Your task to perform on an android device: Search for seafood restaurants on Google Maps Image 0: 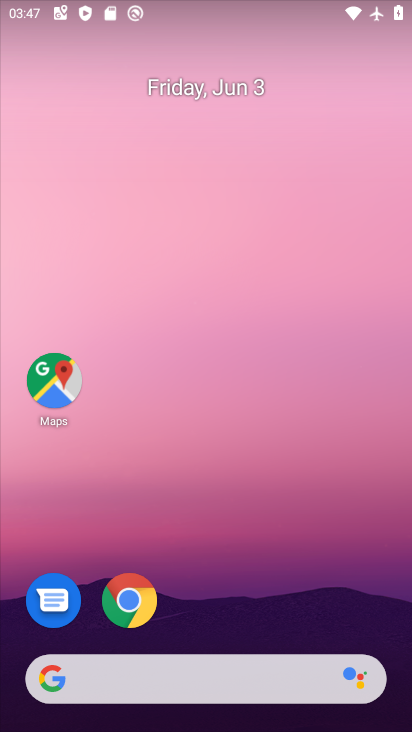
Step 0: drag from (213, 634) to (302, 87)
Your task to perform on an android device: Search for seafood restaurants on Google Maps Image 1: 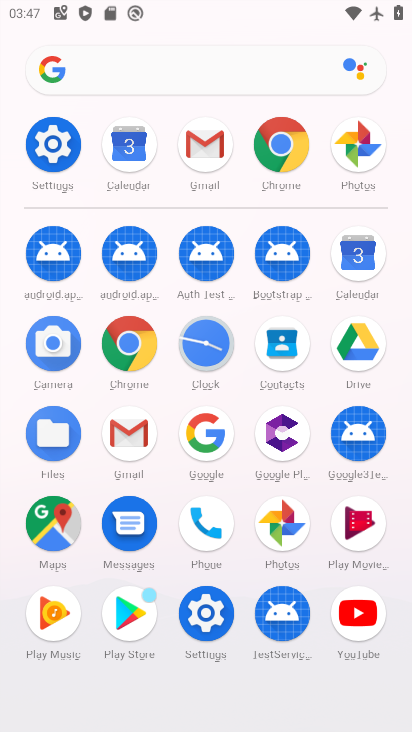
Step 1: click (61, 534)
Your task to perform on an android device: Search for seafood restaurants on Google Maps Image 2: 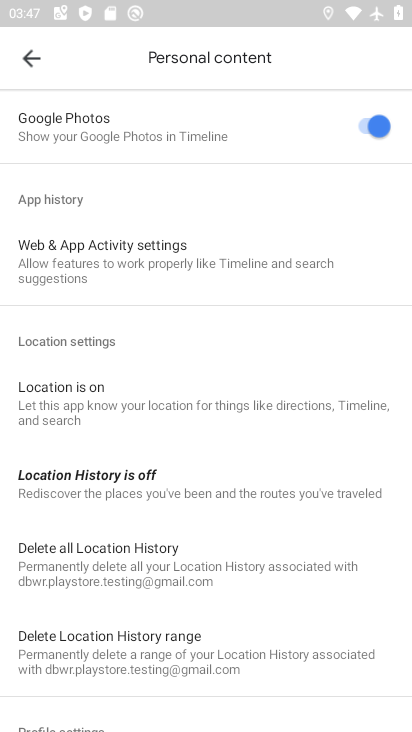
Step 2: click (34, 63)
Your task to perform on an android device: Search for seafood restaurants on Google Maps Image 3: 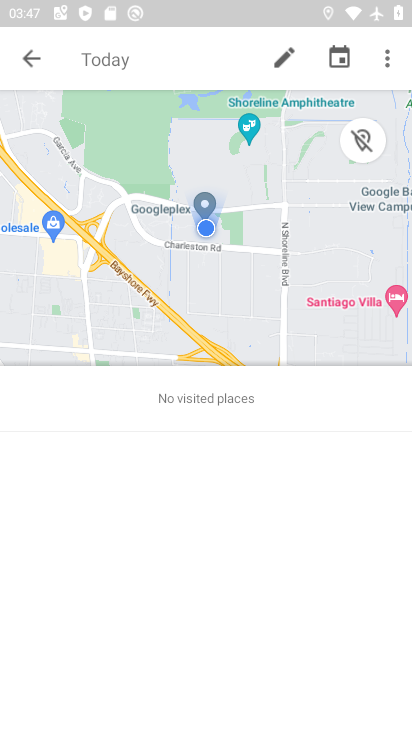
Step 3: click (34, 63)
Your task to perform on an android device: Search for seafood restaurants on Google Maps Image 4: 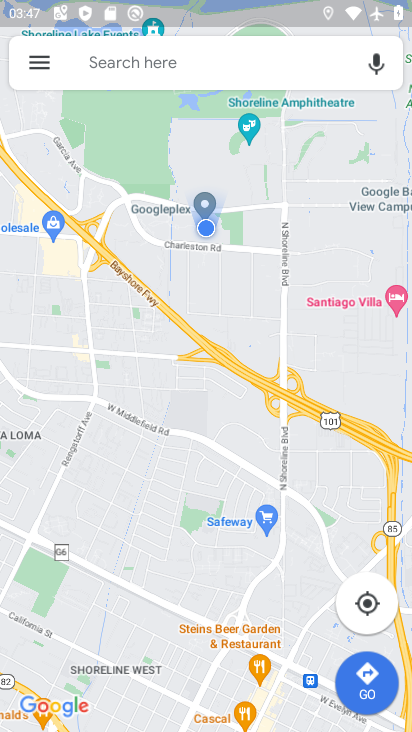
Step 4: click (132, 60)
Your task to perform on an android device: Search for seafood restaurants on Google Maps Image 5: 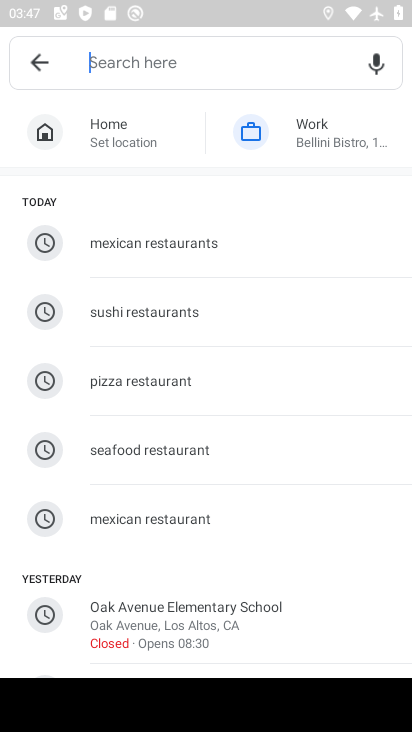
Step 5: type "seafood restaurants"
Your task to perform on an android device: Search for seafood restaurants on Google Maps Image 6: 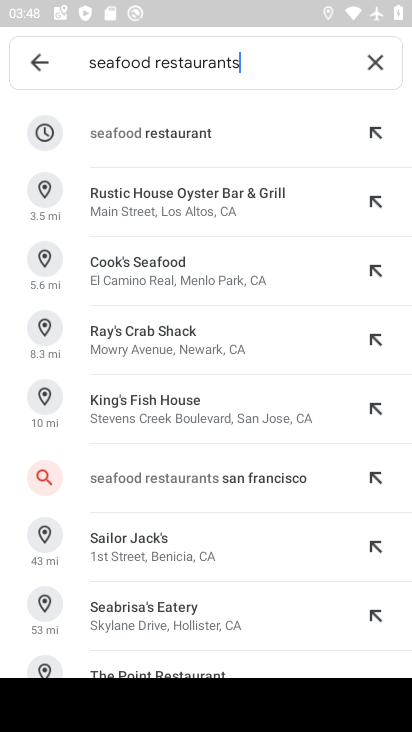
Step 6: click (184, 136)
Your task to perform on an android device: Search for seafood restaurants on Google Maps Image 7: 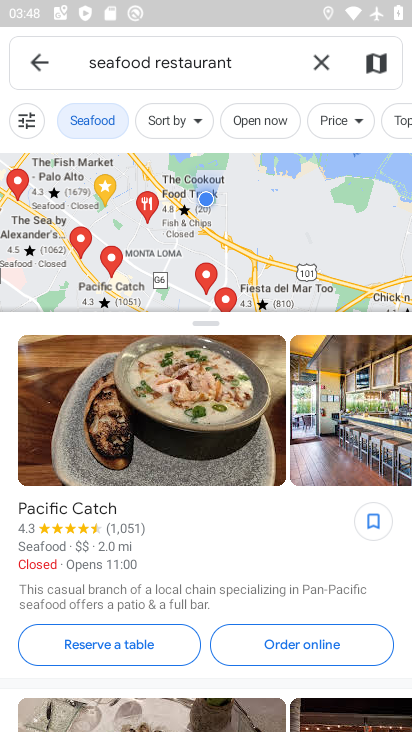
Step 7: task complete